Your task to perform on an android device: Open location settings Image 0: 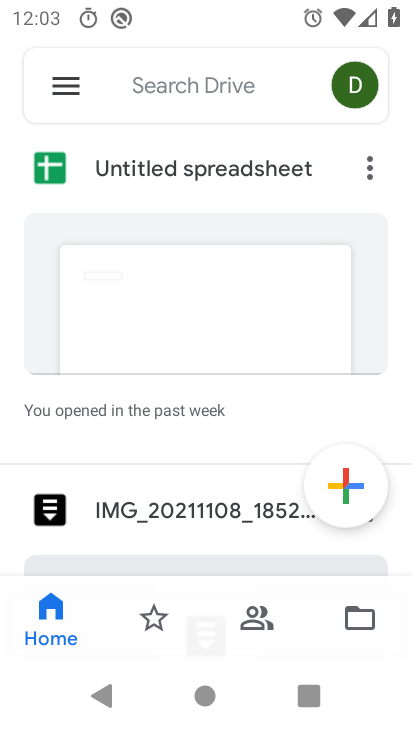
Step 0: press home button
Your task to perform on an android device: Open location settings Image 1: 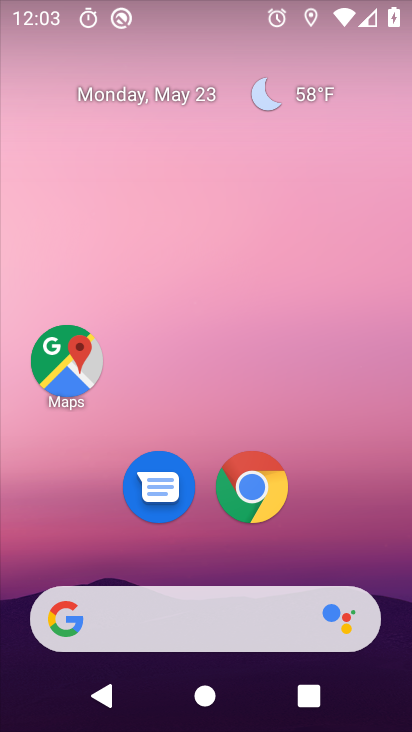
Step 1: drag from (356, 504) to (338, 142)
Your task to perform on an android device: Open location settings Image 2: 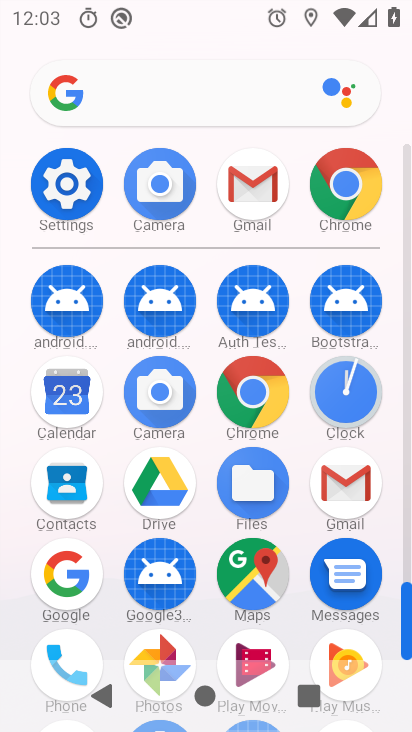
Step 2: click (76, 204)
Your task to perform on an android device: Open location settings Image 3: 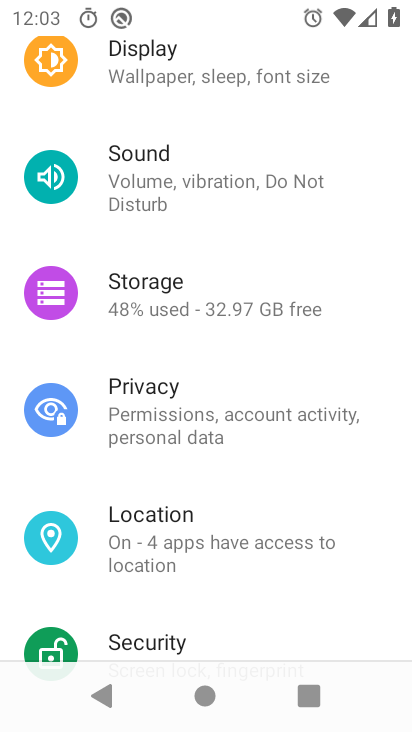
Step 3: click (161, 523)
Your task to perform on an android device: Open location settings Image 4: 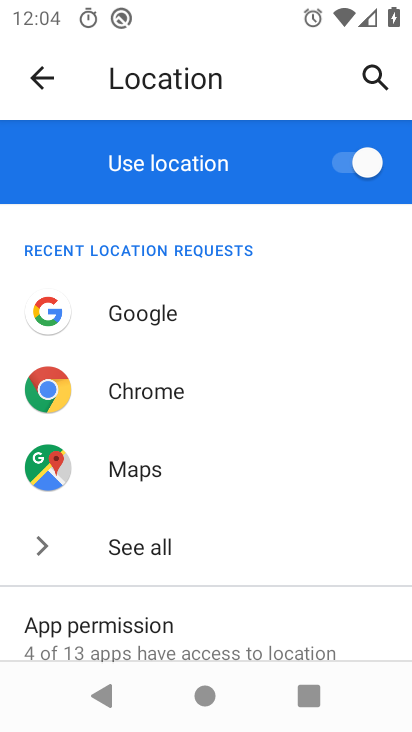
Step 4: task complete